Your task to perform on an android device: all mails in gmail Image 0: 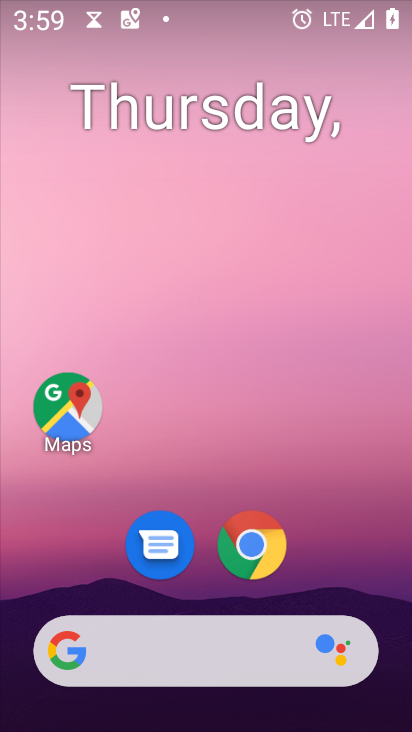
Step 0: drag from (357, 575) to (353, 44)
Your task to perform on an android device: all mails in gmail Image 1: 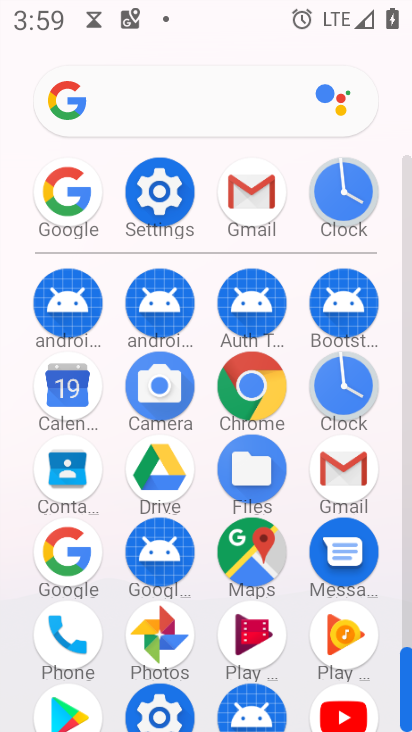
Step 1: click (252, 180)
Your task to perform on an android device: all mails in gmail Image 2: 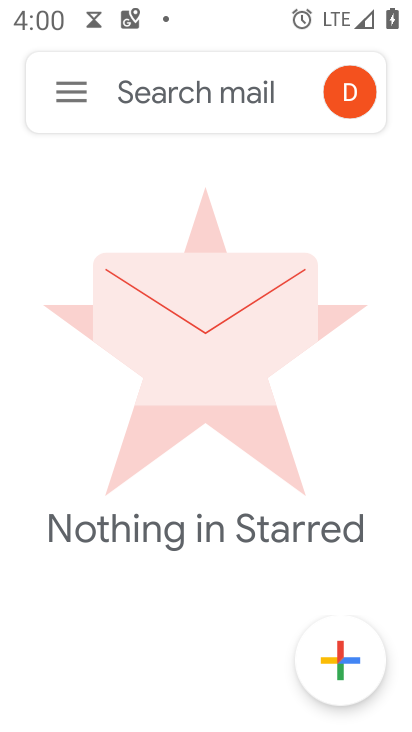
Step 2: click (80, 97)
Your task to perform on an android device: all mails in gmail Image 3: 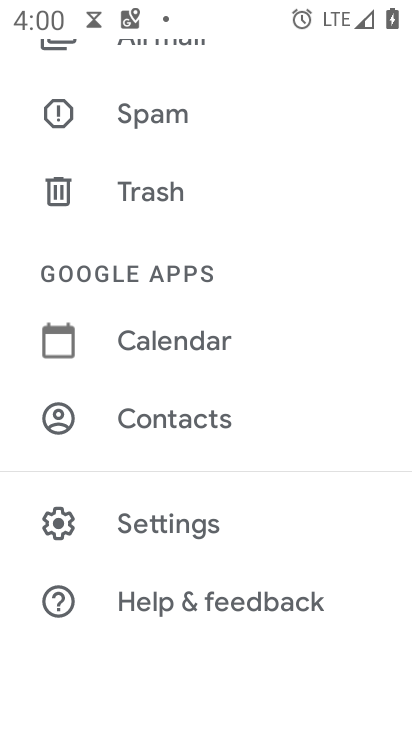
Step 3: drag from (169, 102) to (117, 524)
Your task to perform on an android device: all mails in gmail Image 4: 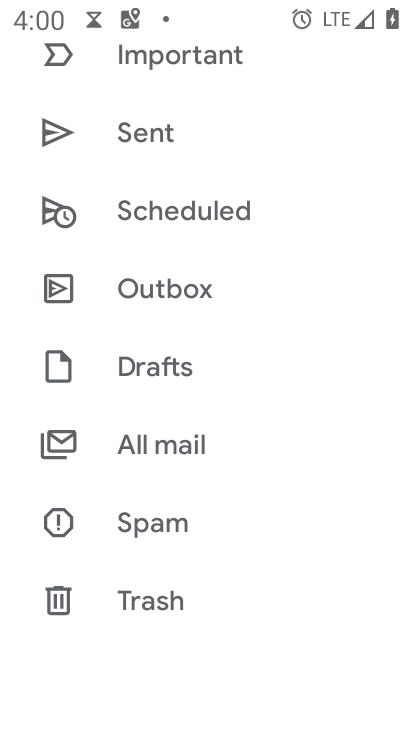
Step 4: click (169, 463)
Your task to perform on an android device: all mails in gmail Image 5: 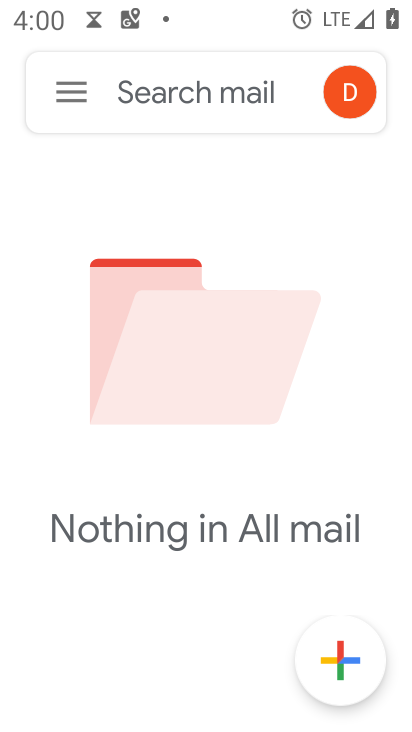
Step 5: task complete